Your task to perform on an android device: What's the weather going to be this weekend? Image 0: 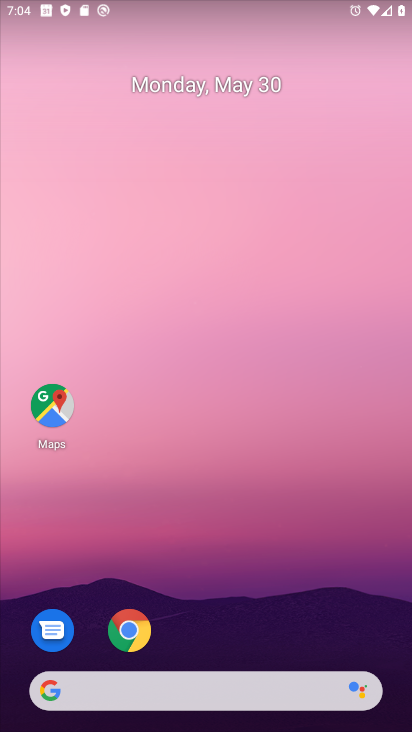
Step 0: drag from (394, 633) to (227, 4)
Your task to perform on an android device: What's the weather going to be this weekend? Image 1: 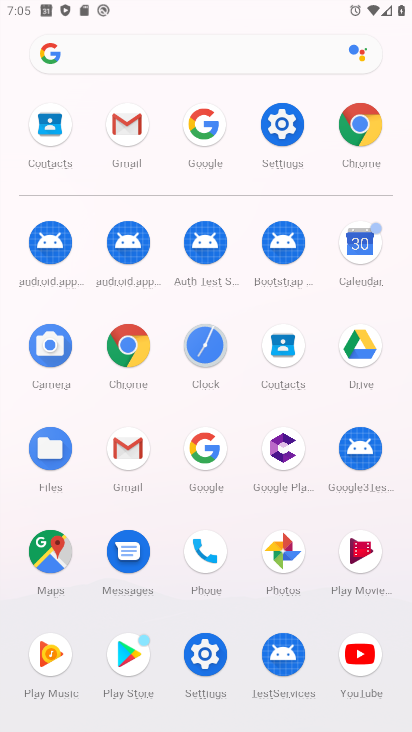
Step 1: click (205, 463)
Your task to perform on an android device: What's the weather going to be this weekend? Image 2: 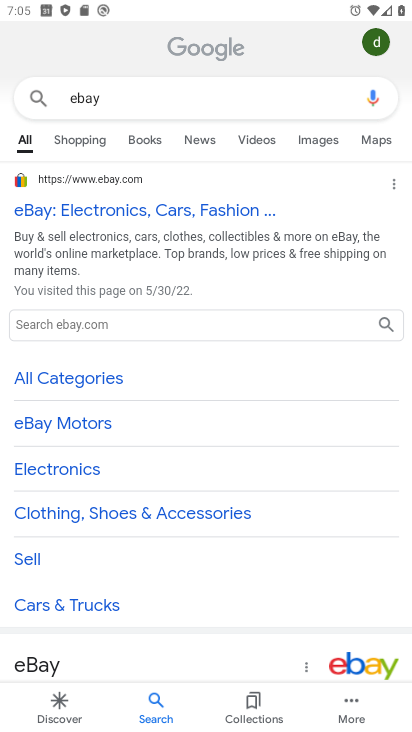
Step 2: press back button
Your task to perform on an android device: What's the weather going to be this weekend? Image 3: 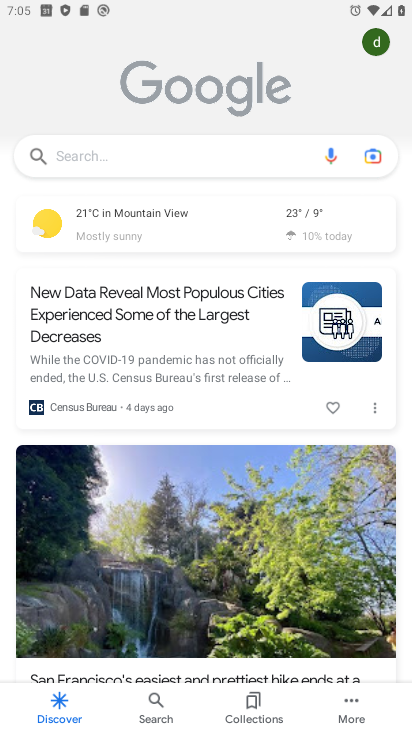
Step 3: click (130, 156)
Your task to perform on an android device: What's the weather going to be this weekend? Image 4: 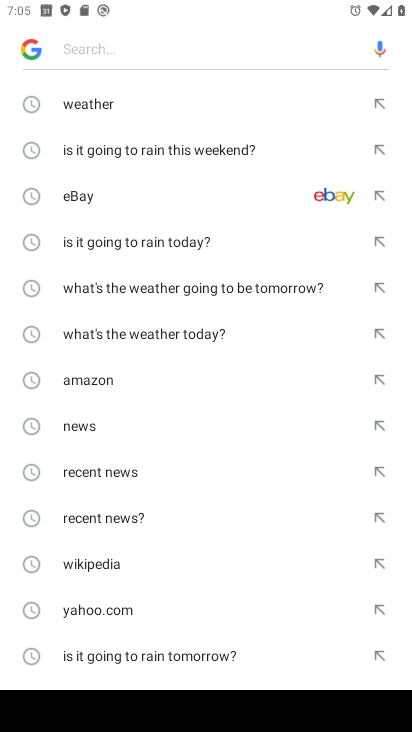
Step 4: drag from (192, 626) to (221, 182)
Your task to perform on an android device: What's the weather going to be this weekend? Image 5: 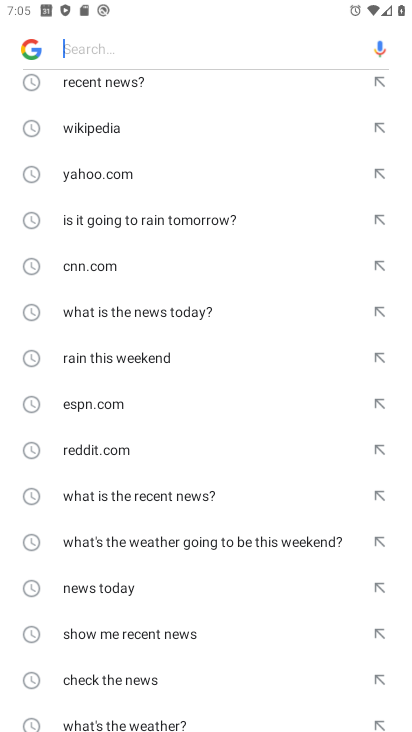
Step 5: click (240, 539)
Your task to perform on an android device: What's the weather going to be this weekend? Image 6: 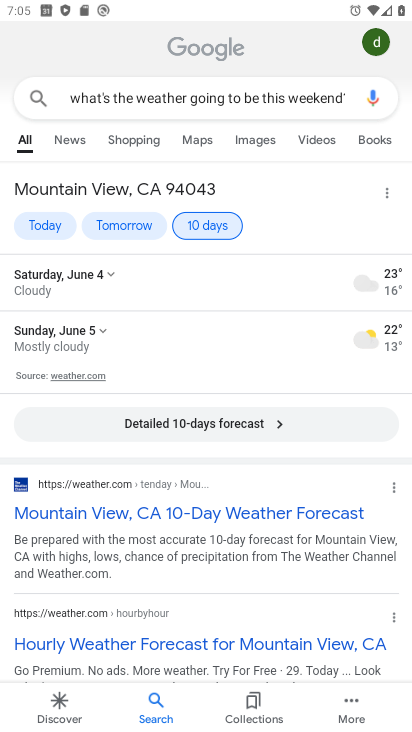
Step 6: task complete